Your task to perform on an android device: Open the calendar and show me this week's events Image 0: 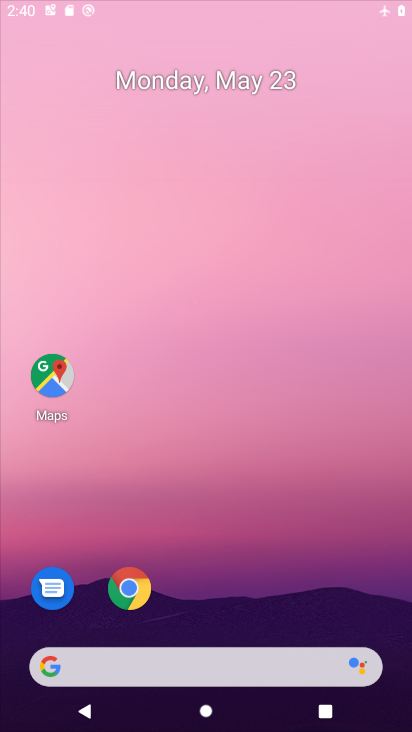
Step 0: click (261, 162)
Your task to perform on an android device: Open the calendar and show me this week's events Image 1: 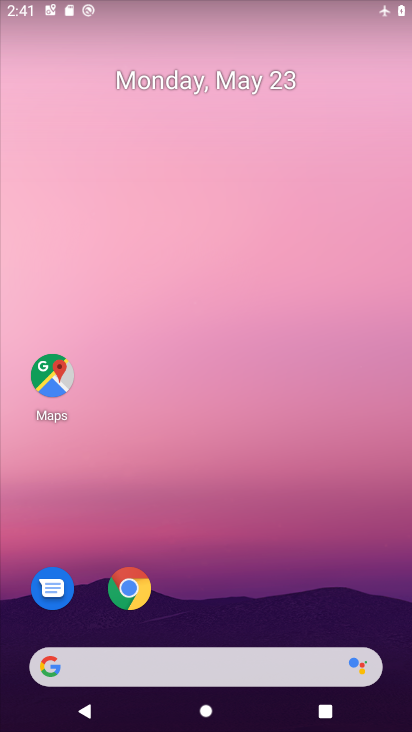
Step 1: drag from (187, 628) to (213, 254)
Your task to perform on an android device: Open the calendar and show me this week's events Image 2: 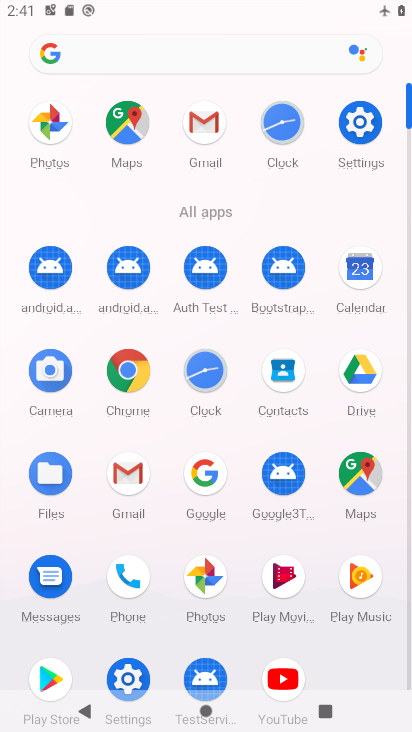
Step 2: click (358, 272)
Your task to perform on an android device: Open the calendar and show me this week's events Image 3: 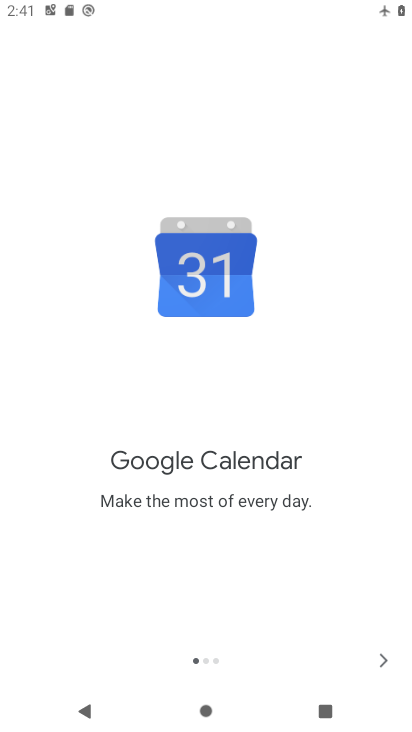
Step 3: click (384, 669)
Your task to perform on an android device: Open the calendar and show me this week's events Image 4: 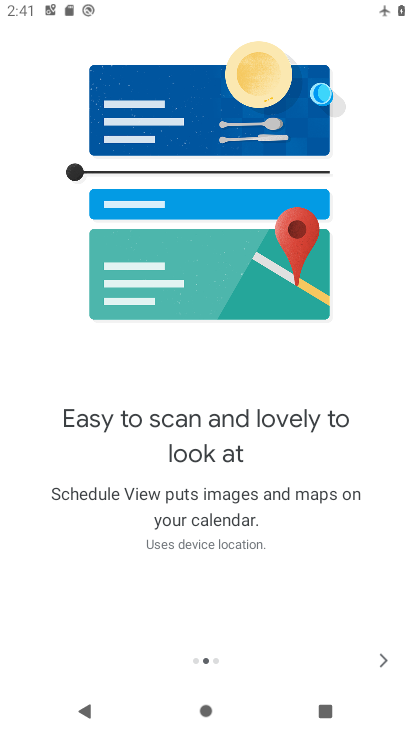
Step 4: click (386, 672)
Your task to perform on an android device: Open the calendar and show me this week's events Image 5: 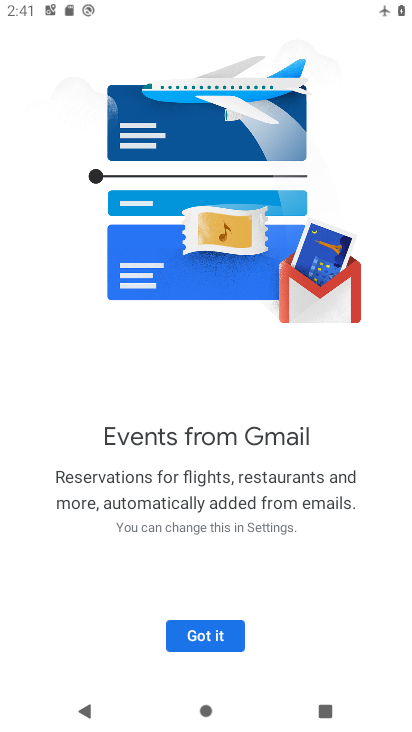
Step 5: click (202, 643)
Your task to perform on an android device: Open the calendar and show me this week's events Image 6: 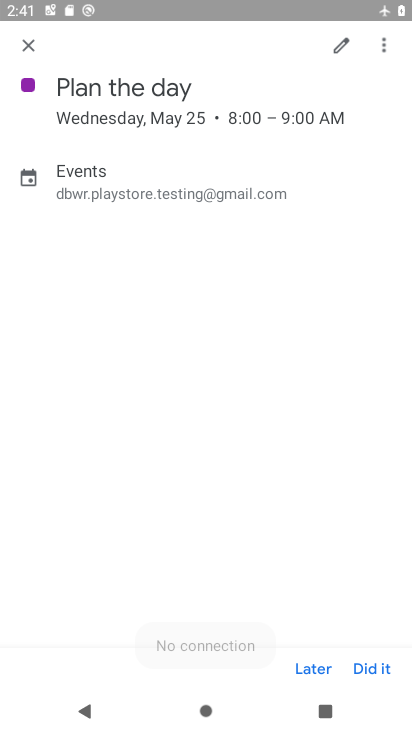
Step 6: click (31, 41)
Your task to perform on an android device: Open the calendar and show me this week's events Image 7: 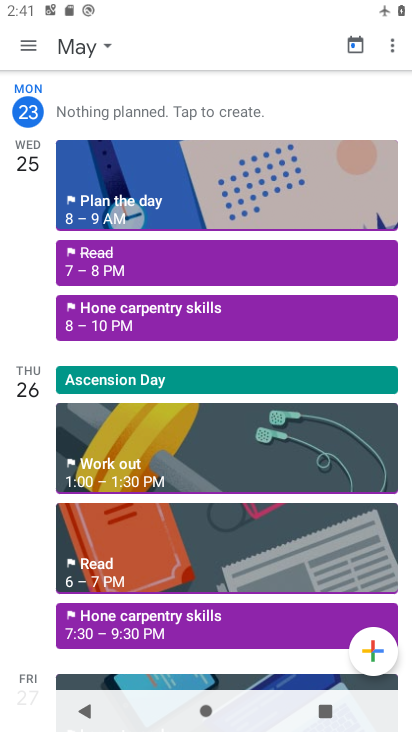
Step 7: click (73, 39)
Your task to perform on an android device: Open the calendar and show me this week's events Image 8: 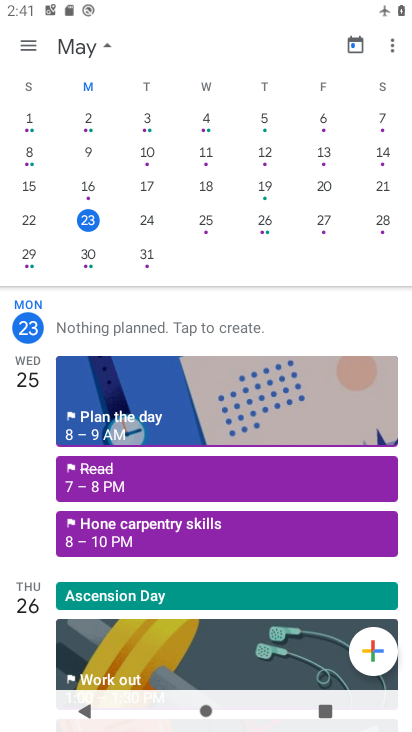
Step 8: click (277, 215)
Your task to perform on an android device: Open the calendar and show me this week's events Image 9: 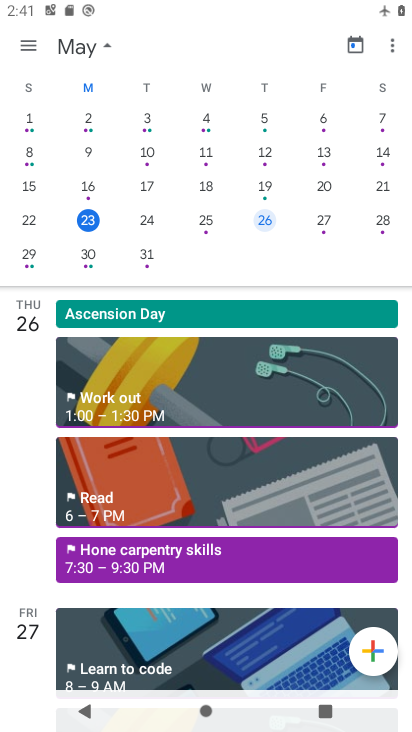
Step 9: task complete